Your task to perform on an android device: Open Google Maps and go to "Timeline" Image 0: 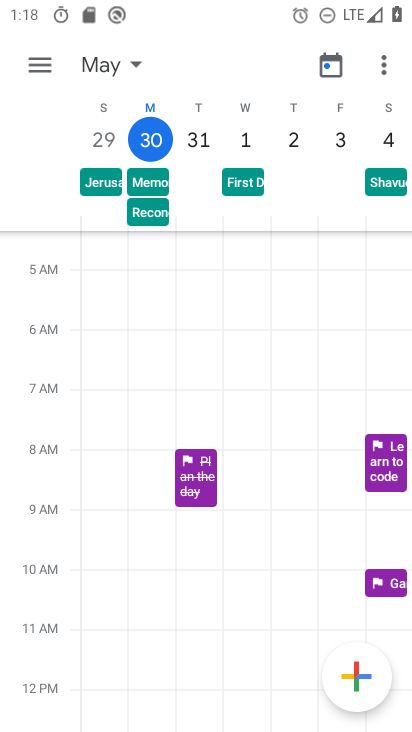
Step 0: press home button
Your task to perform on an android device: Open Google Maps and go to "Timeline" Image 1: 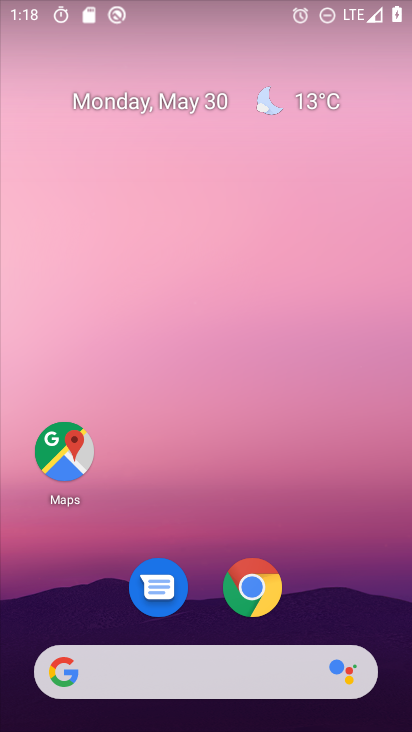
Step 1: click (60, 449)
Your task to perform on an android device: Open Google Maps and go to "Timeline" Image 2: 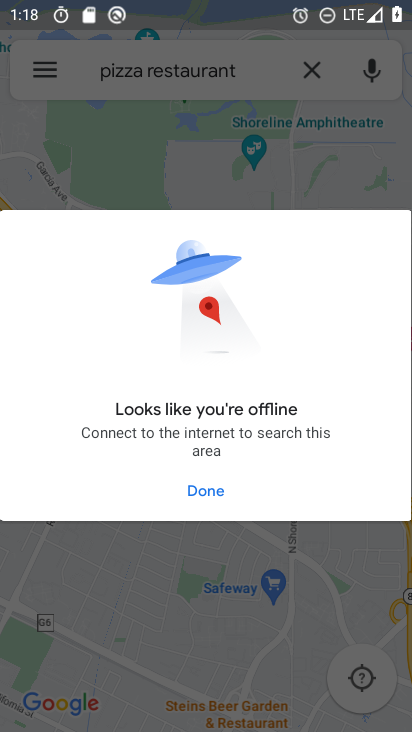
Step 2: click (202, 487)
Your task to perform on an android device: Open Google Maps and go to "Timeline" Image 3: 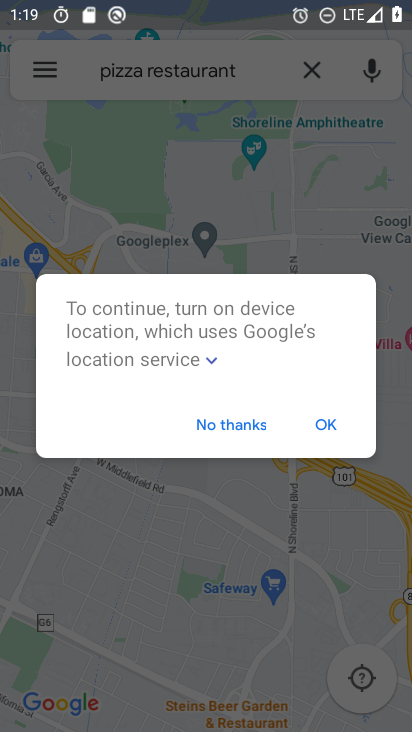
Step 3: click (243, 429)
Your task to perform on an android device: Open Google Maps and go to "Timeline" Image 4: 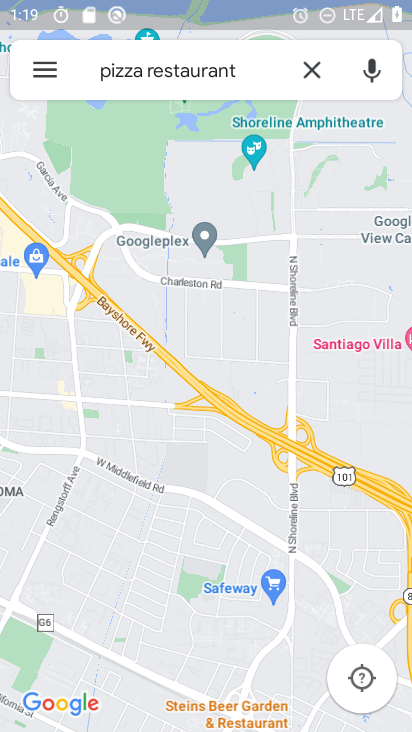
Step 4: click (43, 57)
Your task to perform on an android device: Open Google Maps and go to "Timeline" Image 5: 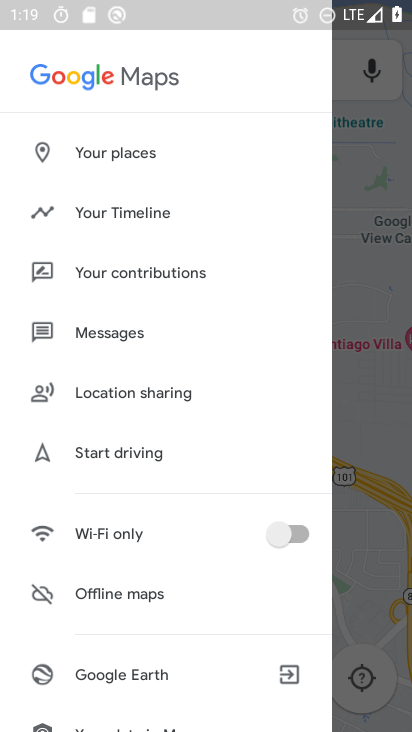
Step 5: click (136, 207)
Your task to perform on an android device: Open Google Maps and go to "Timeline" Image 6: 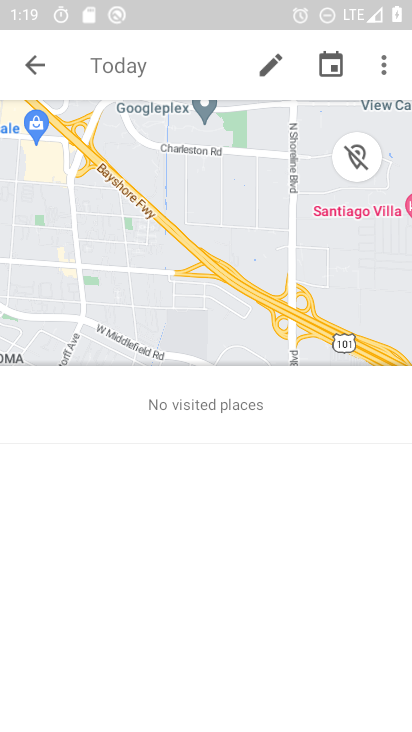
Step 6: task complete